Your task to perform on an android device: add a contact in the contacts app Image 0: 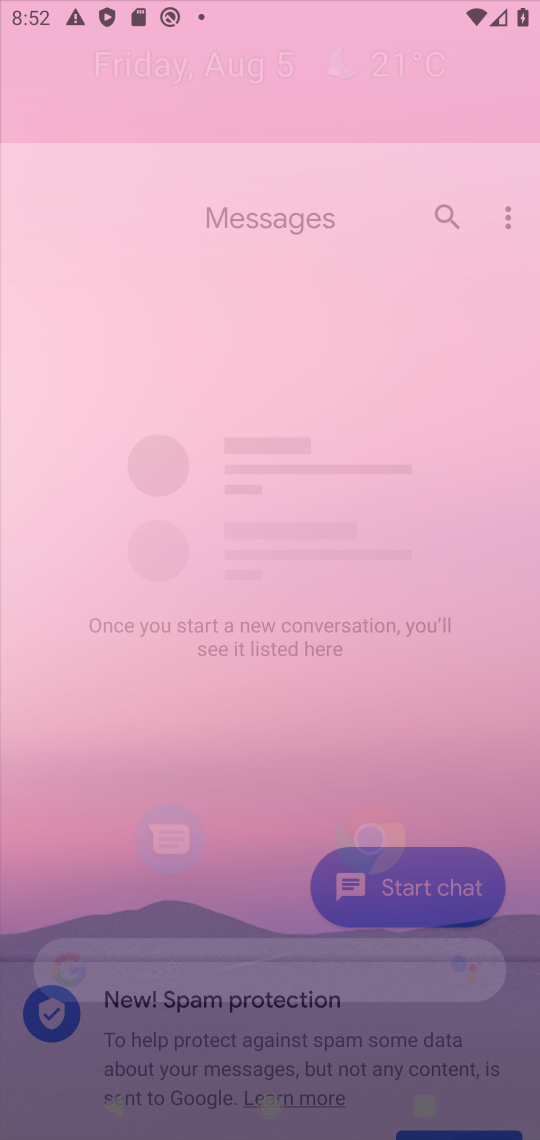
Step 0: press home button
Your task to perform on an android device: add a contact in the contacts app Image 1: 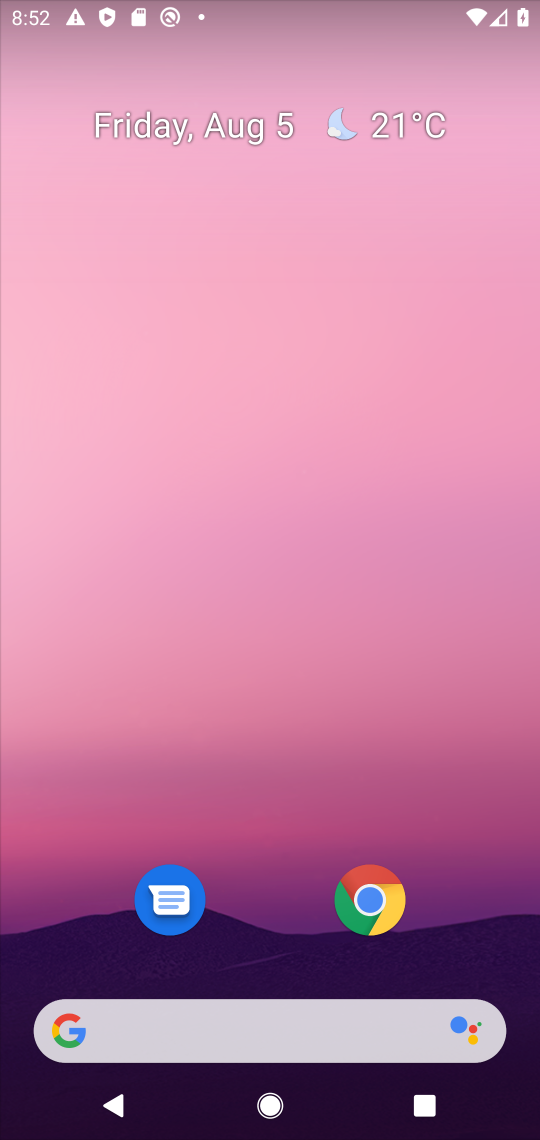
Step 1: drag from (309, 953) to (295, 198)
Your task to perform on an android device: add a contact in the contacts app Image 2: 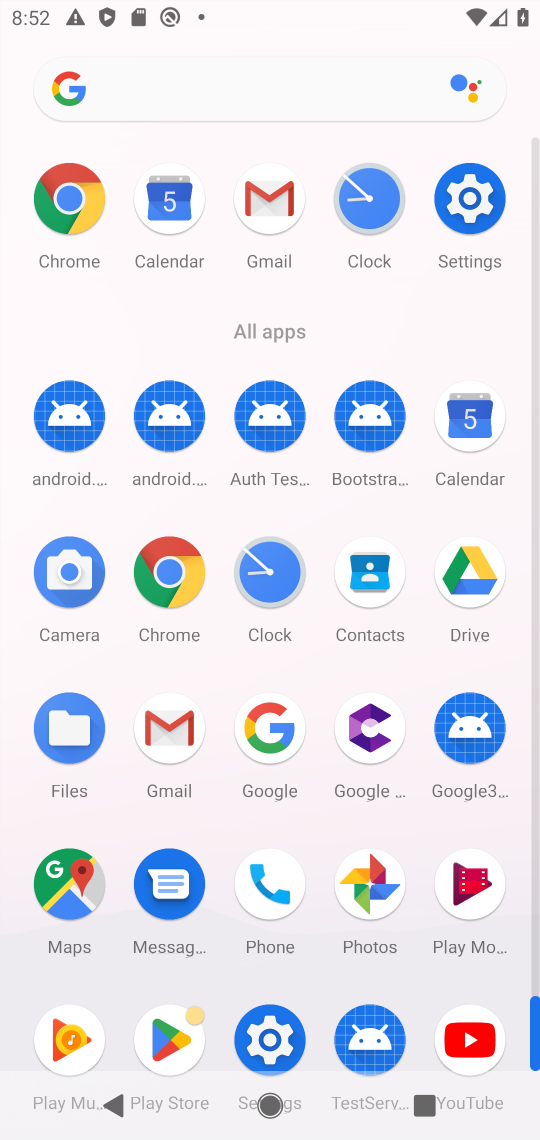
Step 2: click (369, 595)
Your task to perform on an android device: add a contact in the contacts app Image 3: 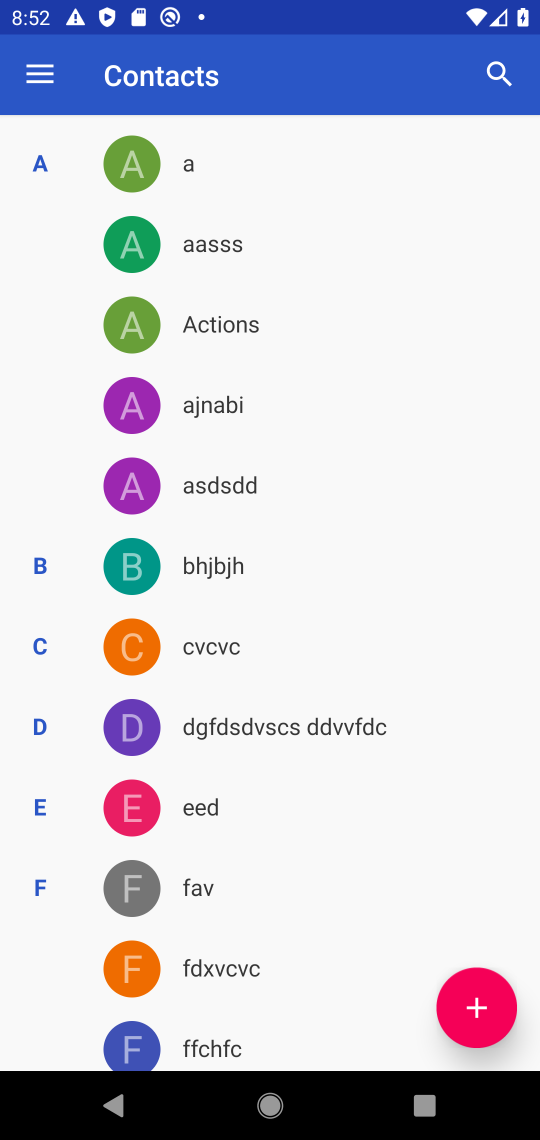
Step 3: click (451, 1020)
Your task to perform on an android device: add a contact in the contacts app Image 4: 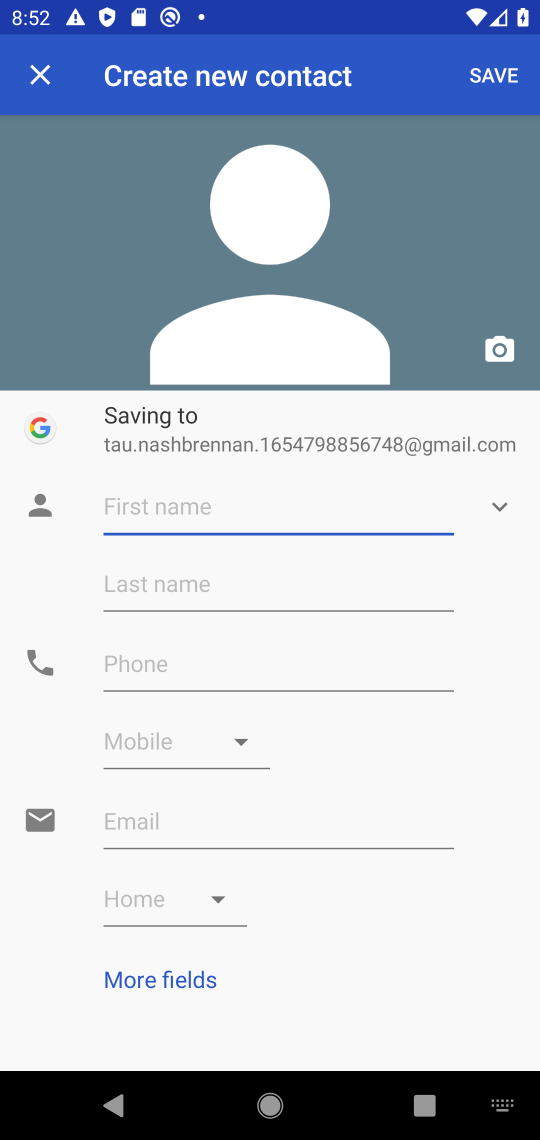
Step 4: type "rohi"
Your task to perform on an android device: add a contact in the contacts app Image 5: 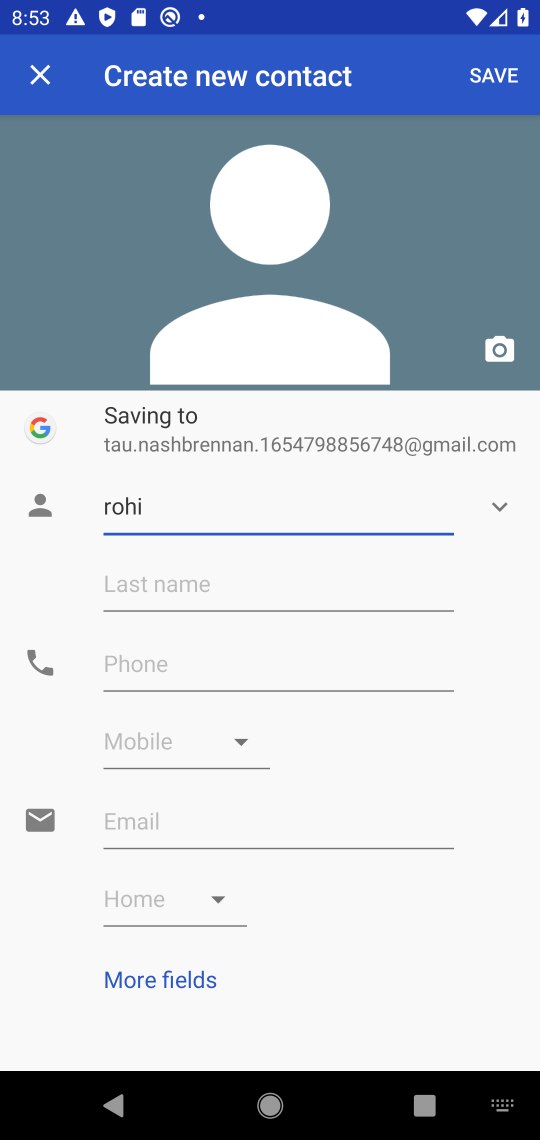
Step 5: click (283, 669)
Your task to perform on an android device: add a contact in the contacts app Image 6: 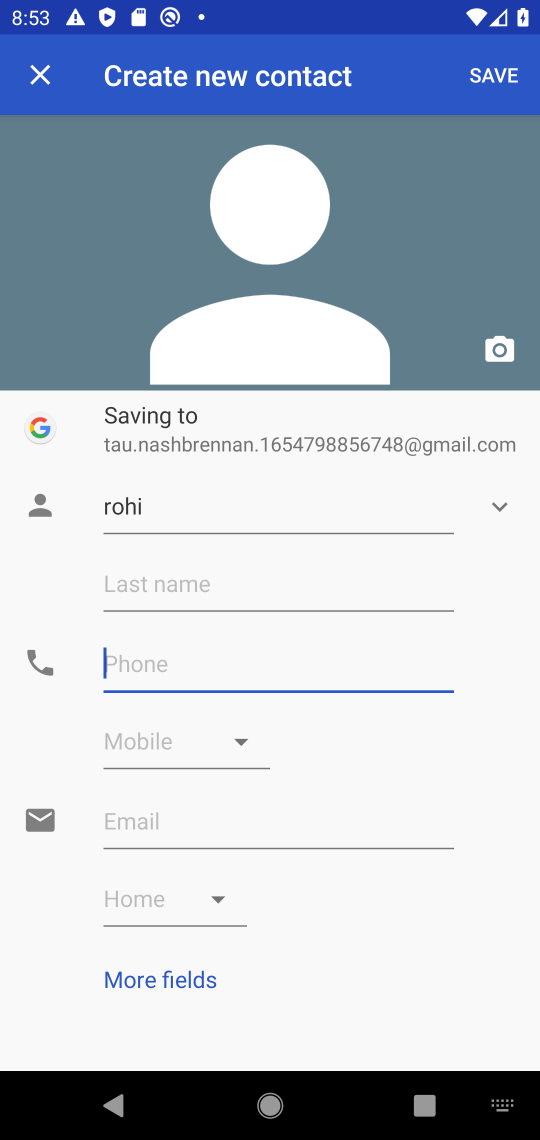
Step 6: type "3222235244522252452546576800987654321234567890987654323456777654"
Your task to perform on an android device: add a contact in the contacts app Image 7: 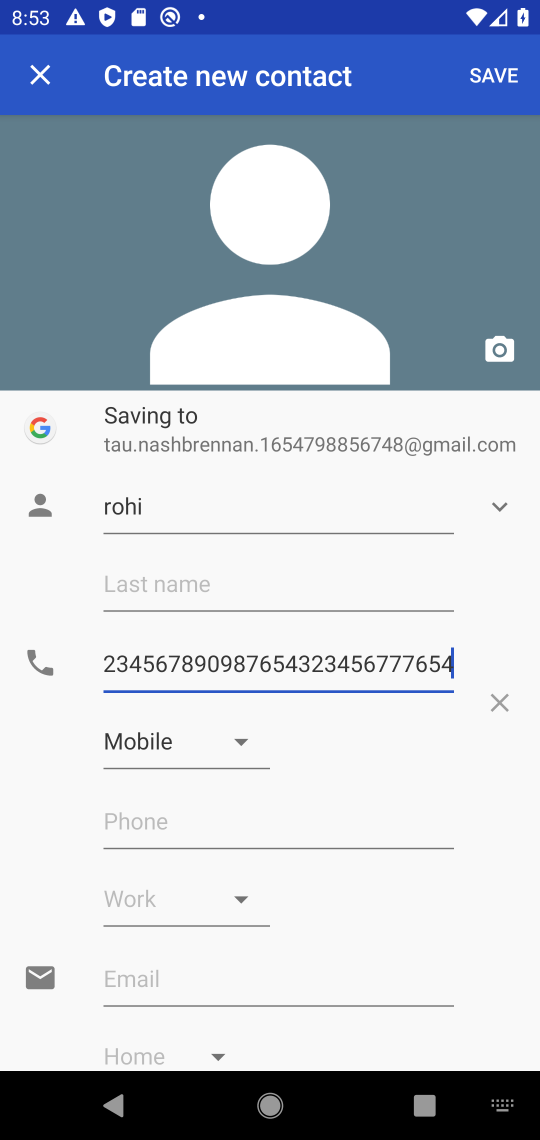
Step 7: click (486, 65)
Your task to perform on an android device: add a contact in the contacts app Image 8: 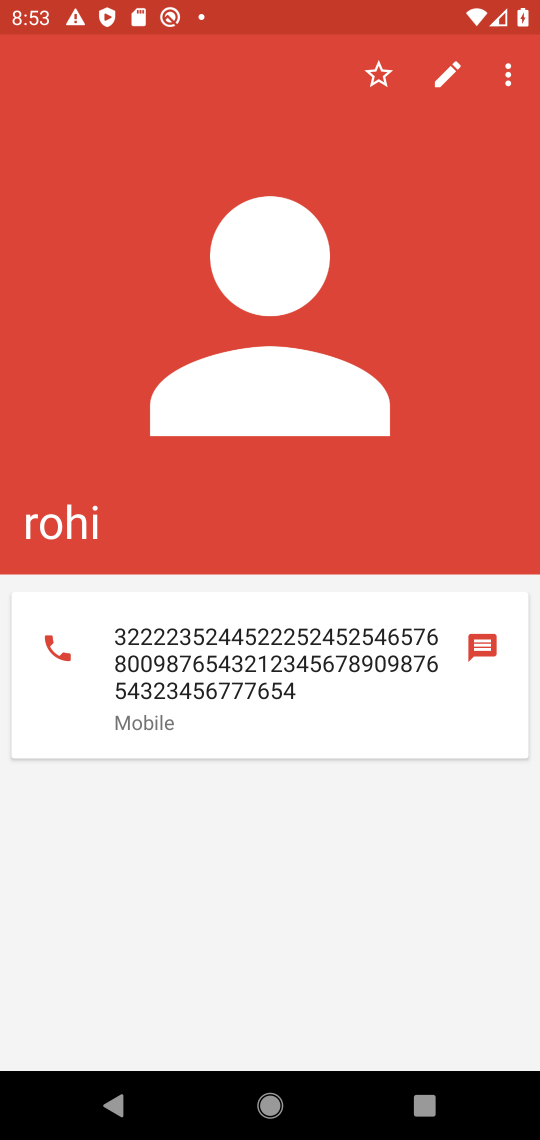
Step 8: task complete